Your task to perform on an android device: Open battery settings Image 0: 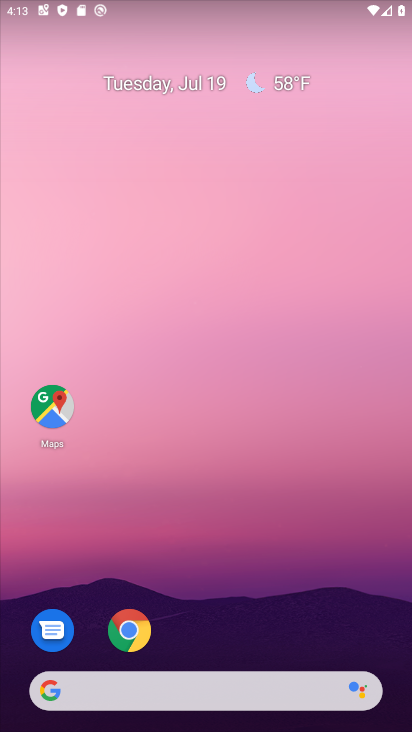
Step 0: drag from (253, 618) to (315, 200)
Your task to perform on an android device: Open battery settings Image 1: 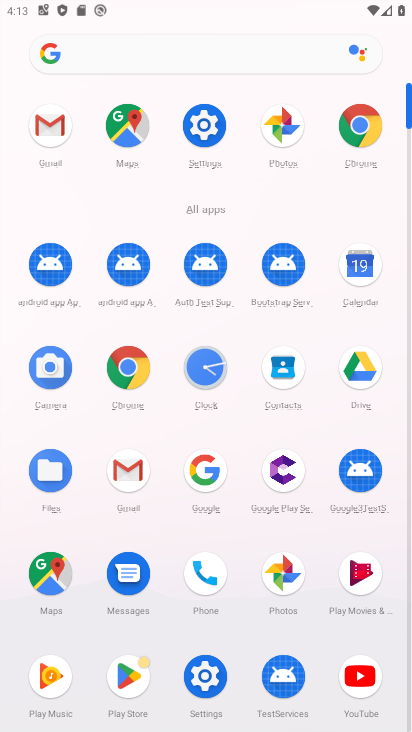
Step 1: click (201, 678)
Your task to perform on an android device: Open battery settings Image 2: 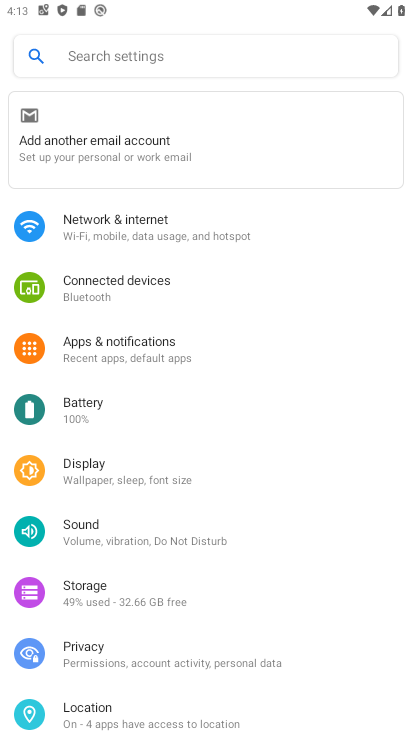
Step 2: click (121, 411)
Your task to perform on an android device: Open battery settings Image 3: 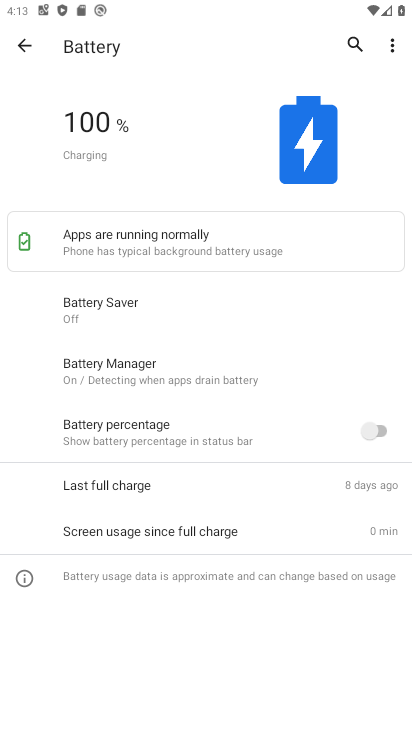
Step 3: task complete